Your task to perform on an android device: empty trash in google photos Image 0: 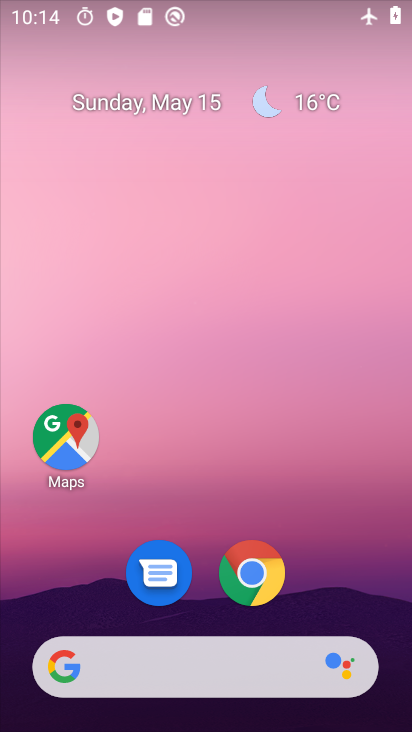
Step 0: drag from (295, 617) to (233, 142)
Your task to perform on an android device: empty trash in google photos Image 1: 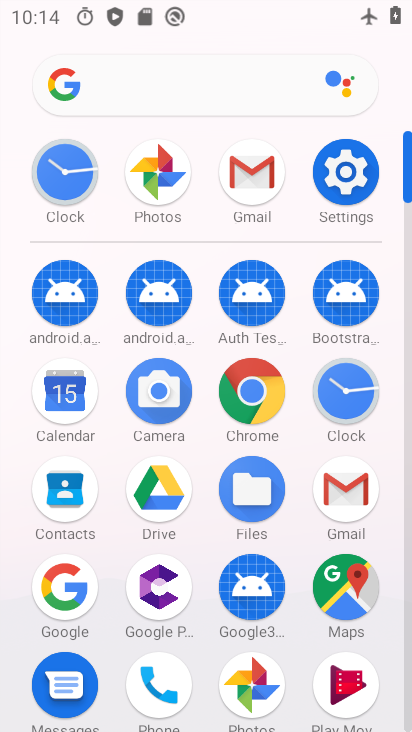
Step 1: click (153, 195)
Your task to perform on an android device: empty trash in google photos Image 2: 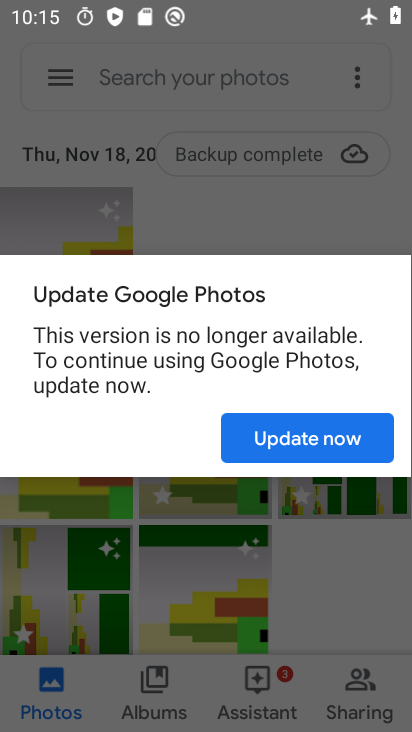
Step 2: click (264, 424)
Your task to perform on an android device: empty trash in google photos Image 3: 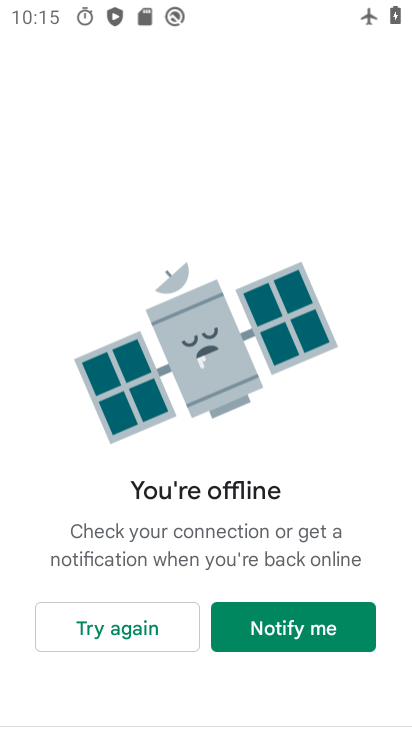
Step 3: task complete